Your task to perform on an android device: Search for the best gaming monitor on Best Buy Image 0: 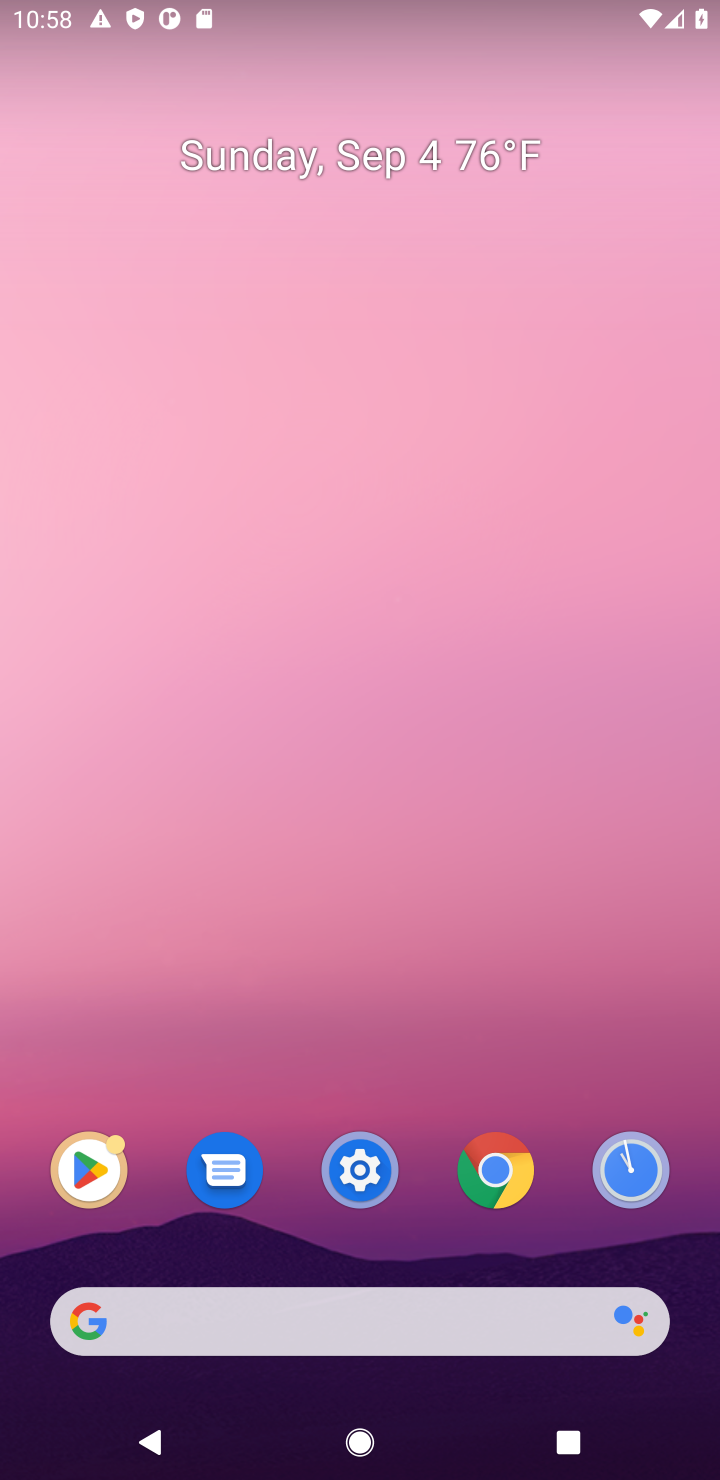
Step 0: click (491, 1326)
Your task to perform on an android device: Search for the best gaming monitor on Best Buy Image 1: 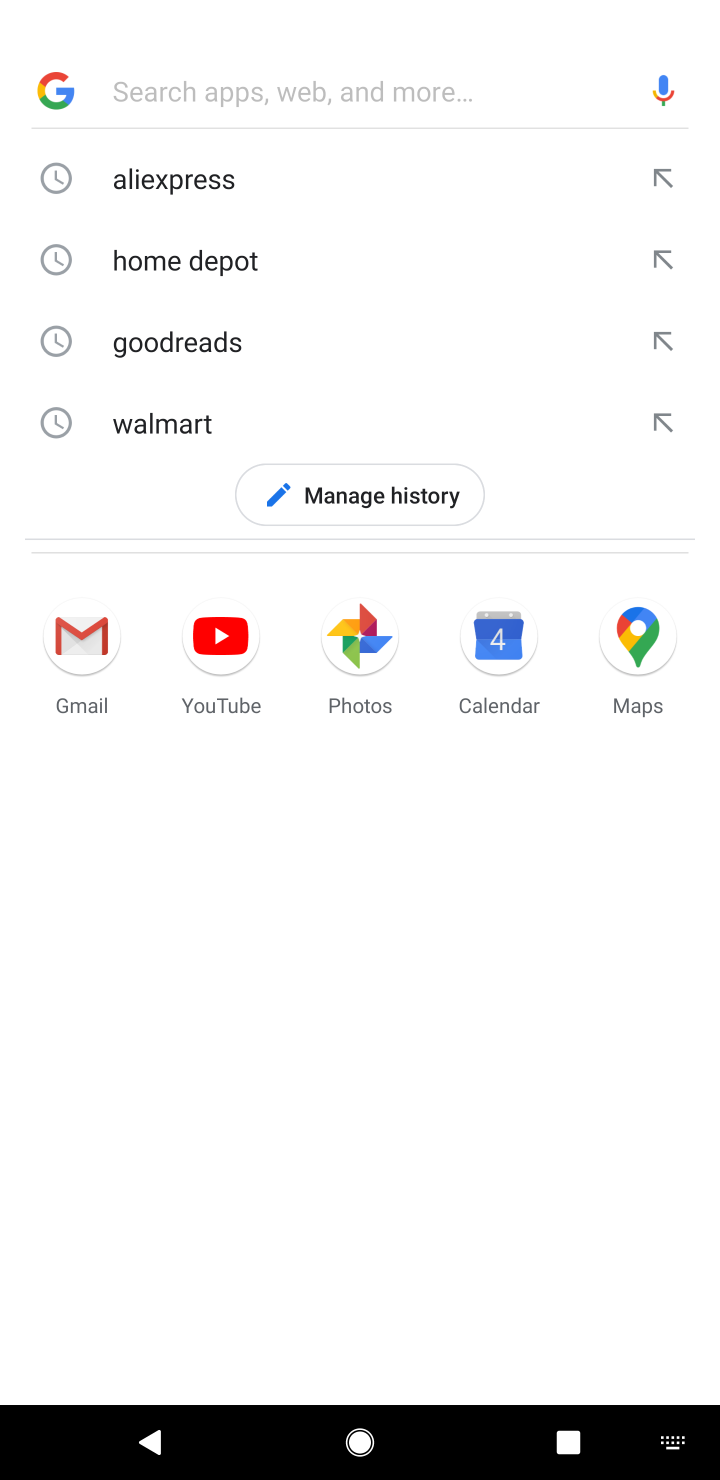
Step 1: type "Best Buy"
Your task to perform on an android device: Search for the best gaming monitor on Best Buy Image 2: 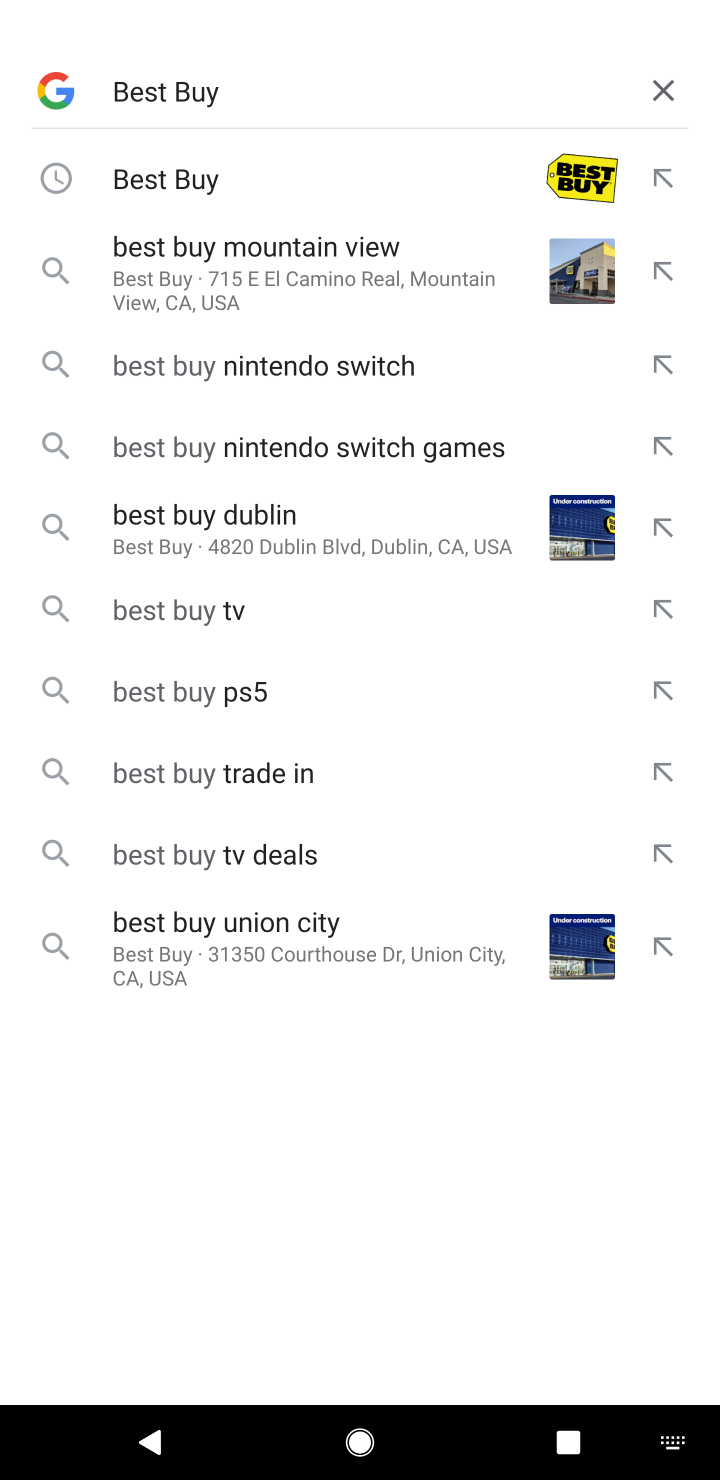
Step 2: click (122, 158)
Your task to perform on an android device: Search for the best gaming monitor on Best Buy Image 3: 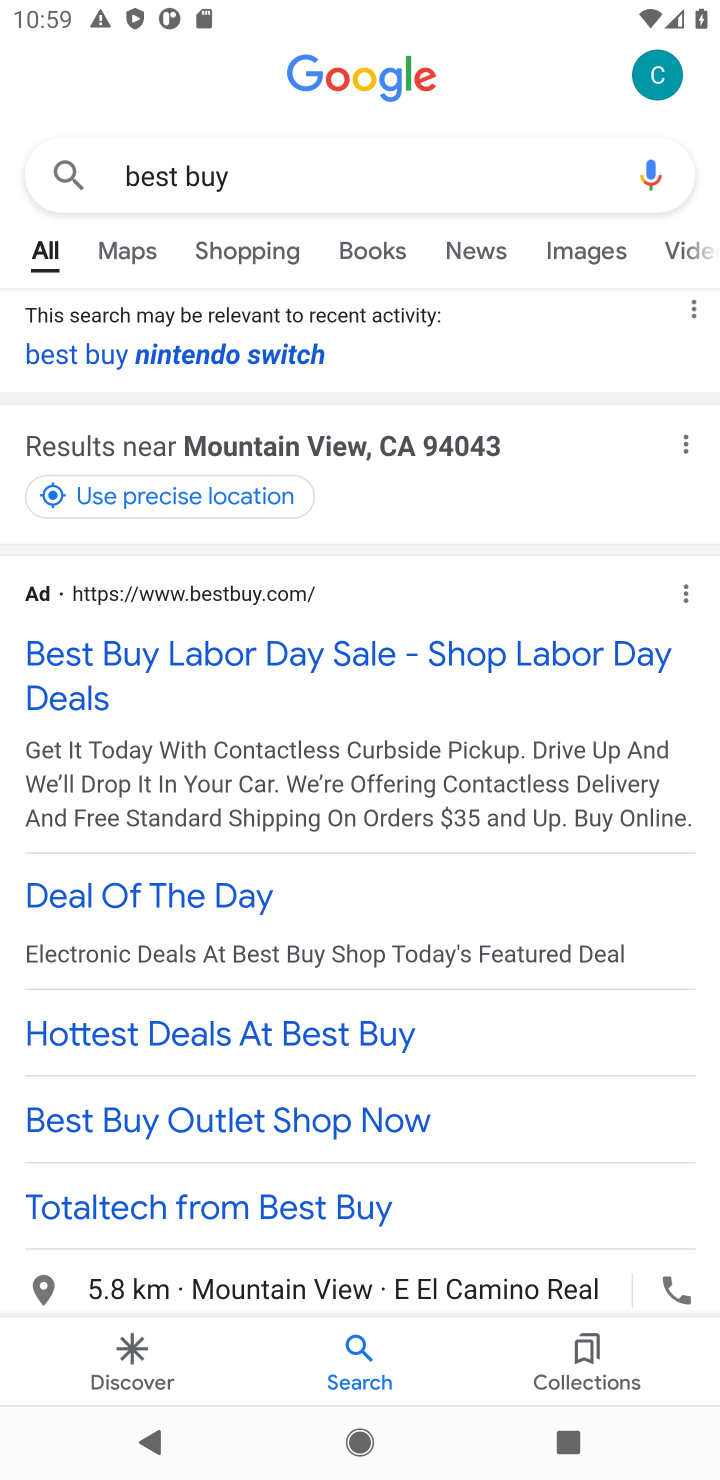
Step 3: drag from (329, 777) to (370, 350)
Your task to perform on an android device: Search for the best gaming monitor on Best Buy Image 4: 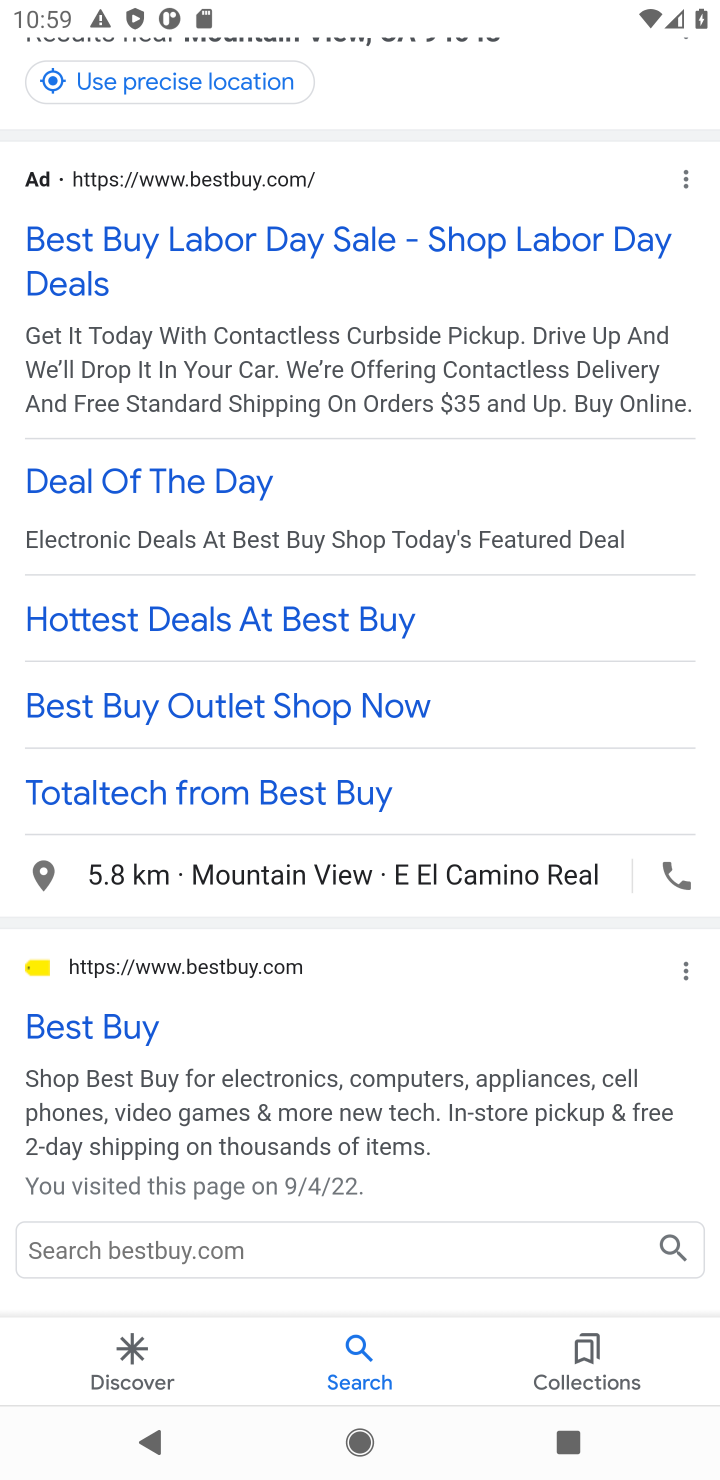
Step 4: drag from (336, 848) to (396, 288)
Your task to perform on an android device: Search for the best gaming monitor on Best Buy Image 5: 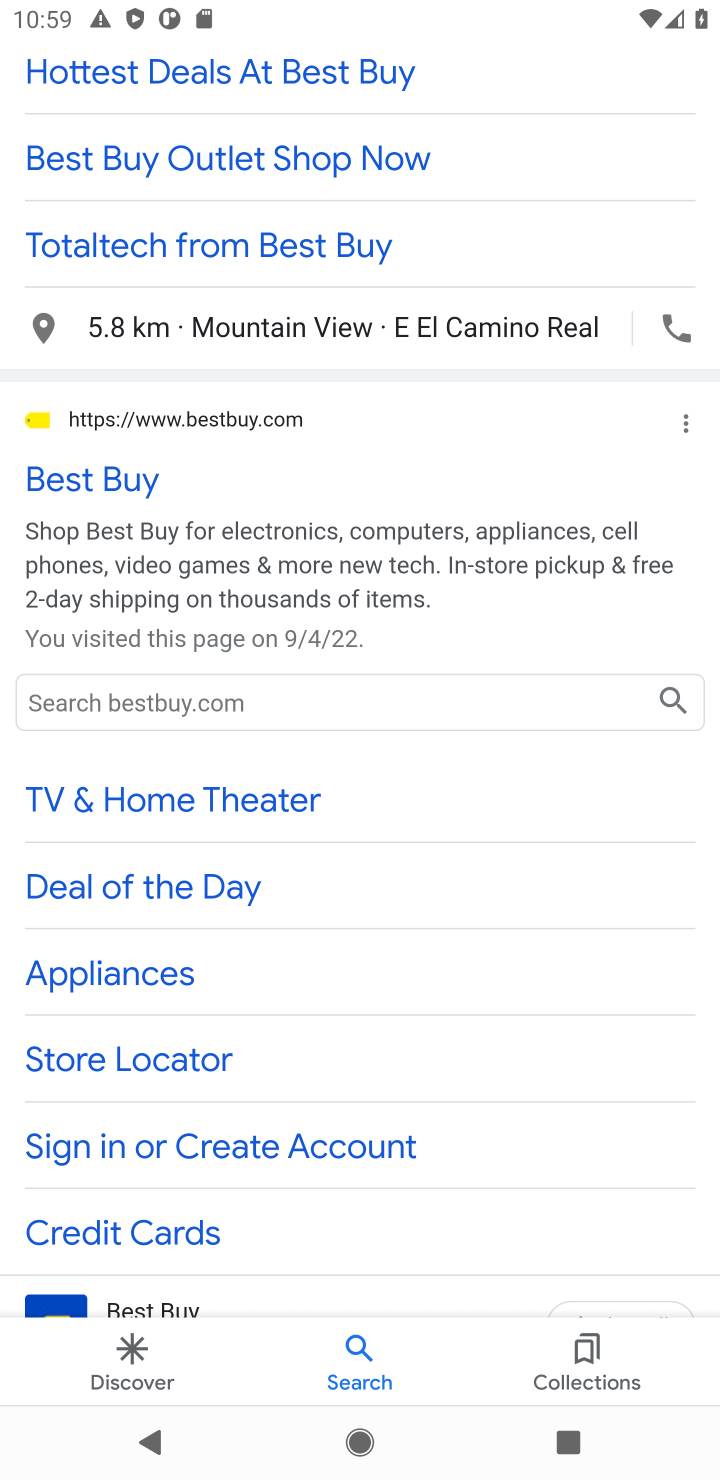
Step 5: click (89, 473)
Your task to perform on an android device: Search for the best gaming monitor on Best Buy Image 6: 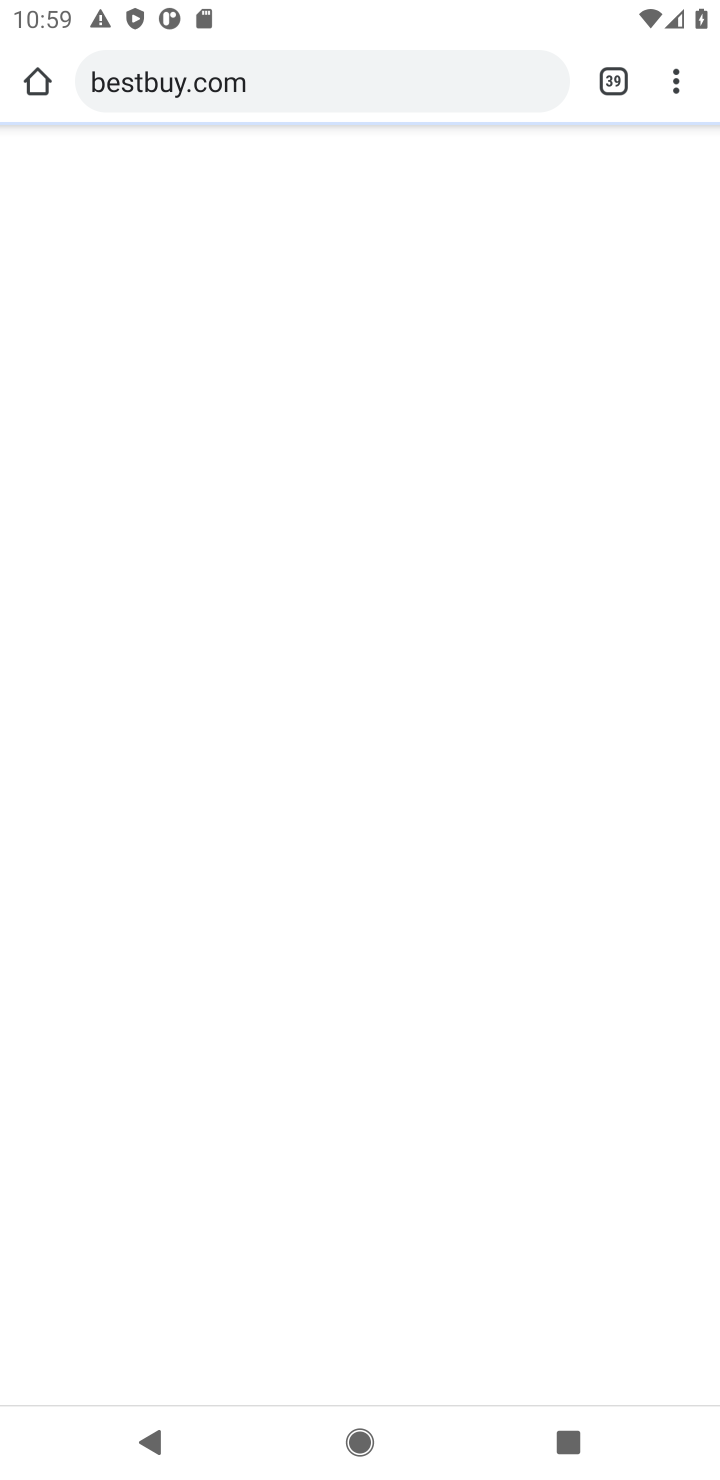
Step 6: click (89, 473)
Your task to perform on an android device: Search for the best gaming monitor on Best Buy Image 7: 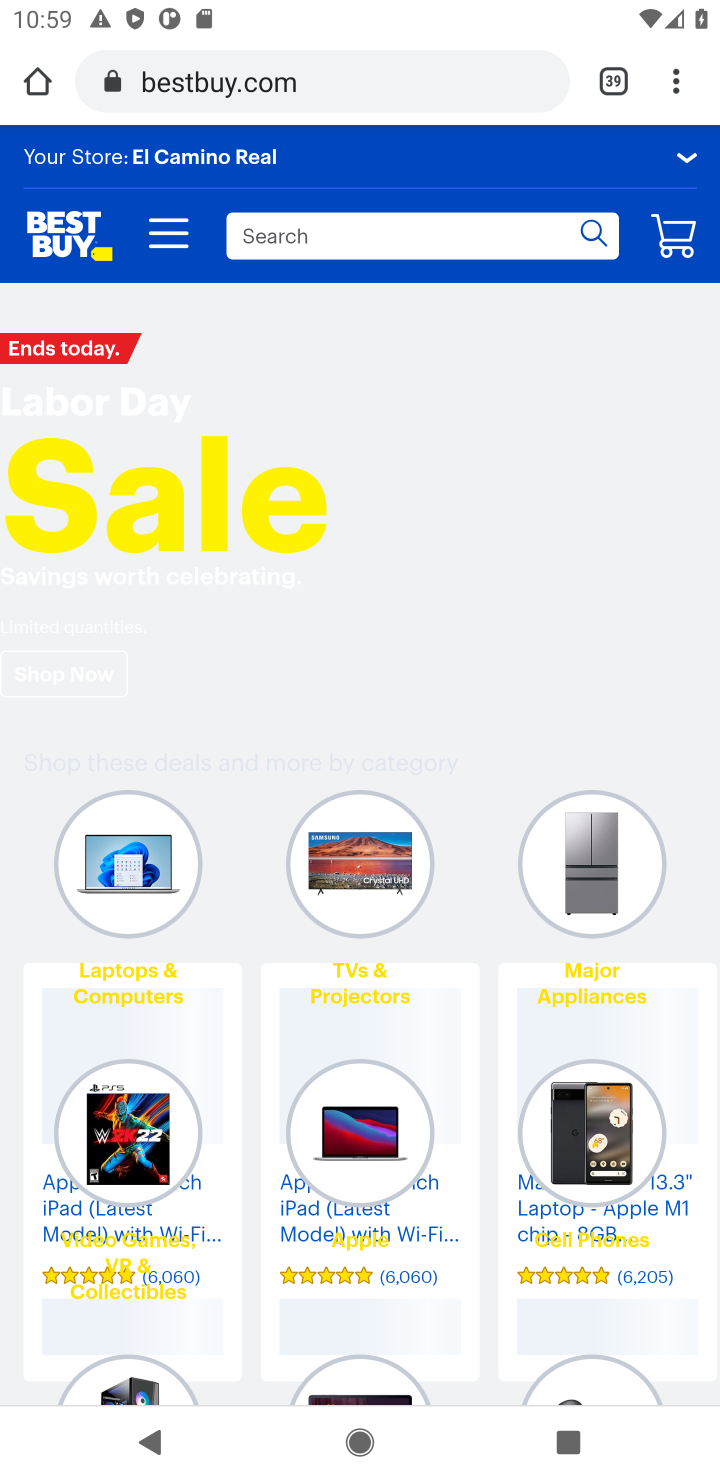
Step 7: click (345, 233)
Your task to perform on an android device: Search for the best gaming monitor on Best Buy Image 8: 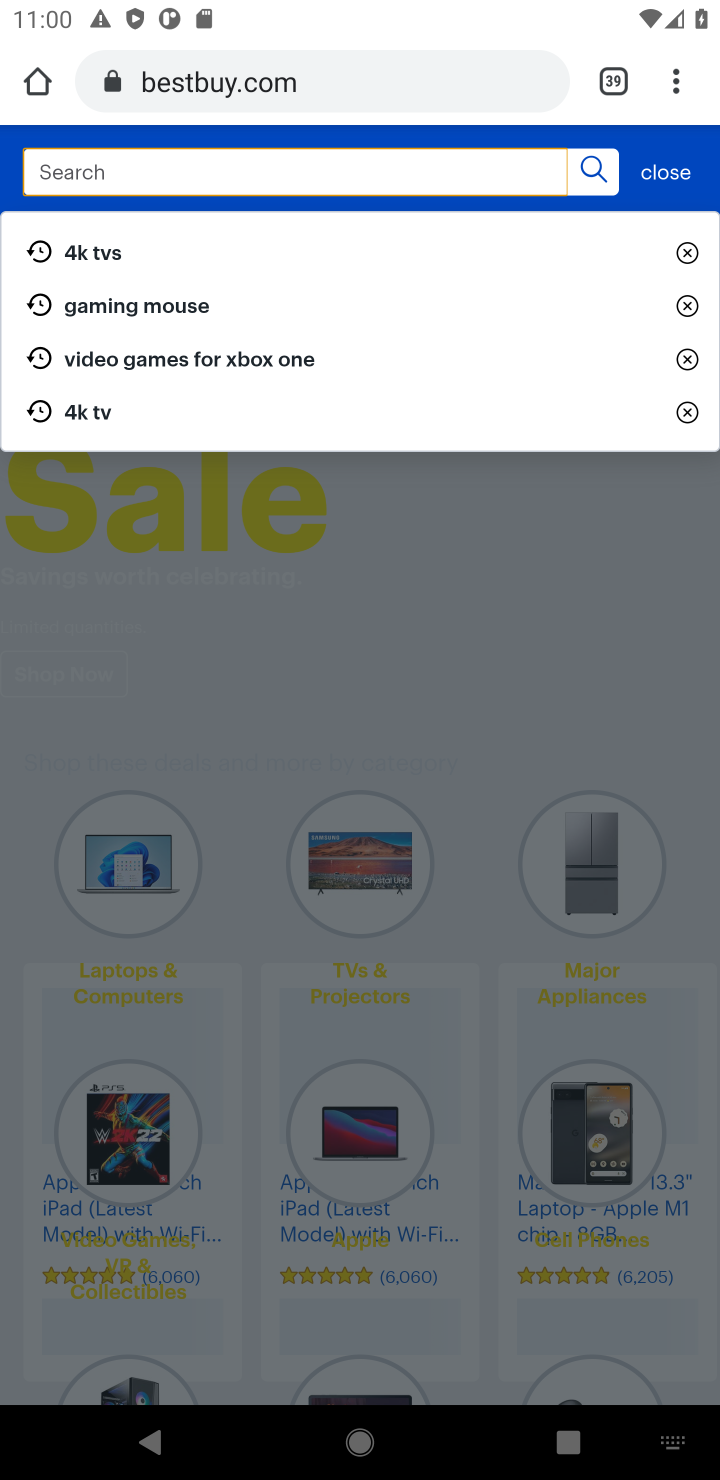
Step 8: type "gaming monitor"
Your task to perform on an android device: Search for the best gaming monitor on Best Buy Image 9: 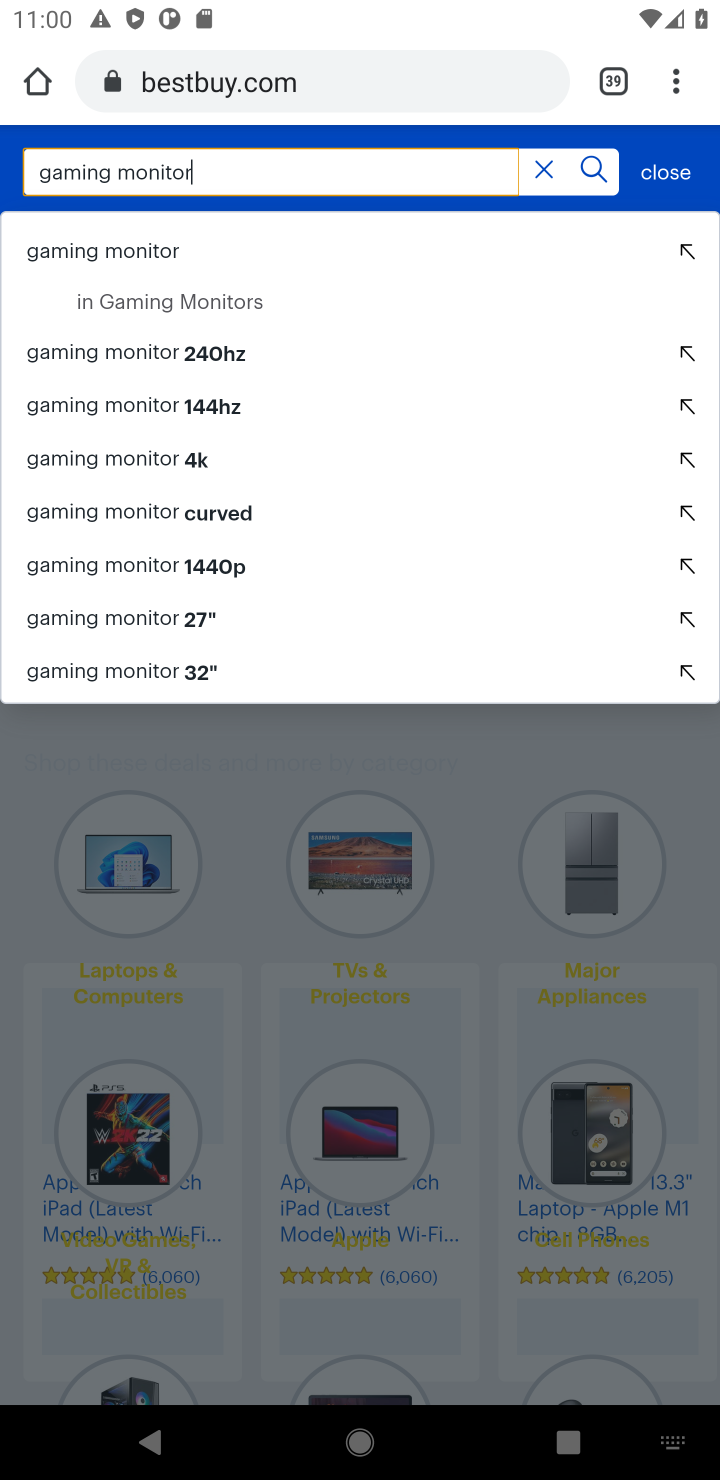
Step 9: click (69, 239)
Your task to perform on an android device: Search for the best gaming monitor on Best Buy Image 10: 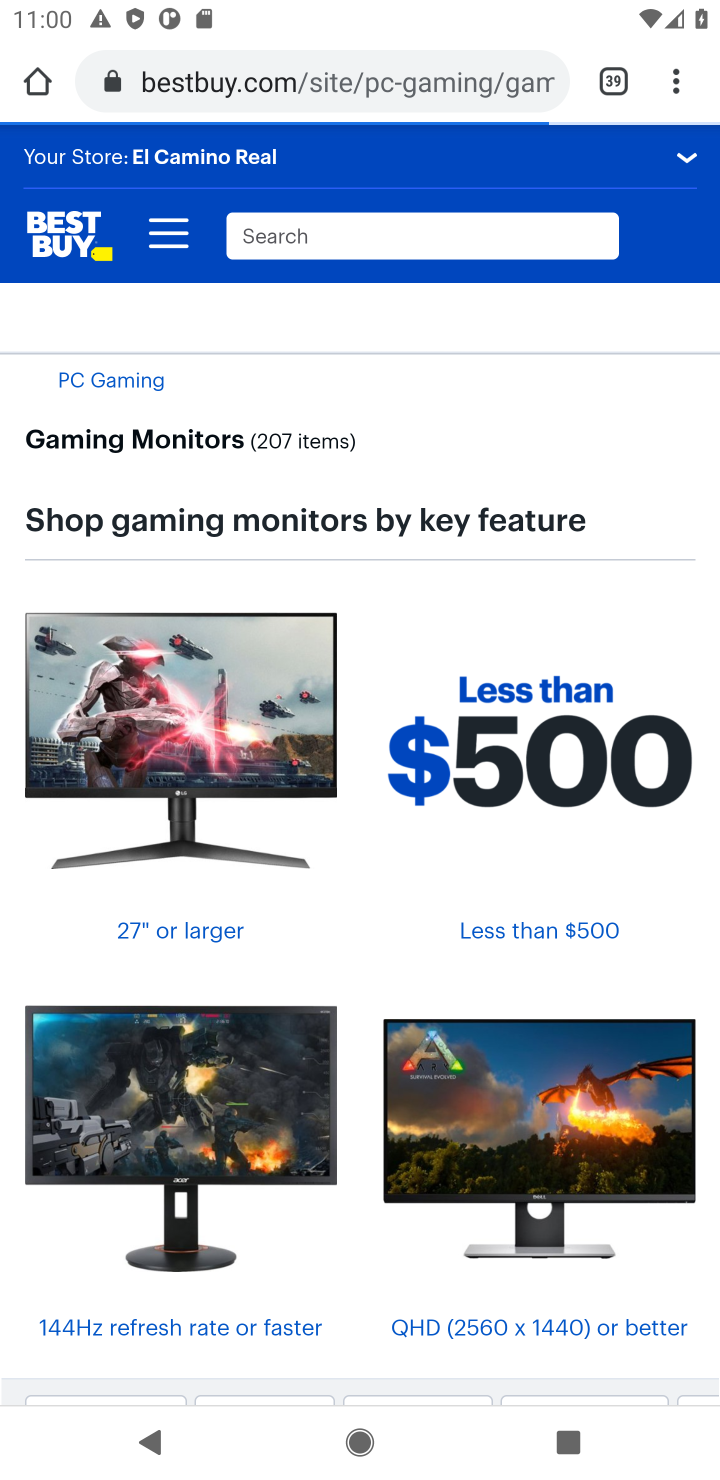
Step 10: drag from (393, 426) to (408, 322)
Your task to perform on an android device: Search for the best gaming monitor on Best Buy Image 11: 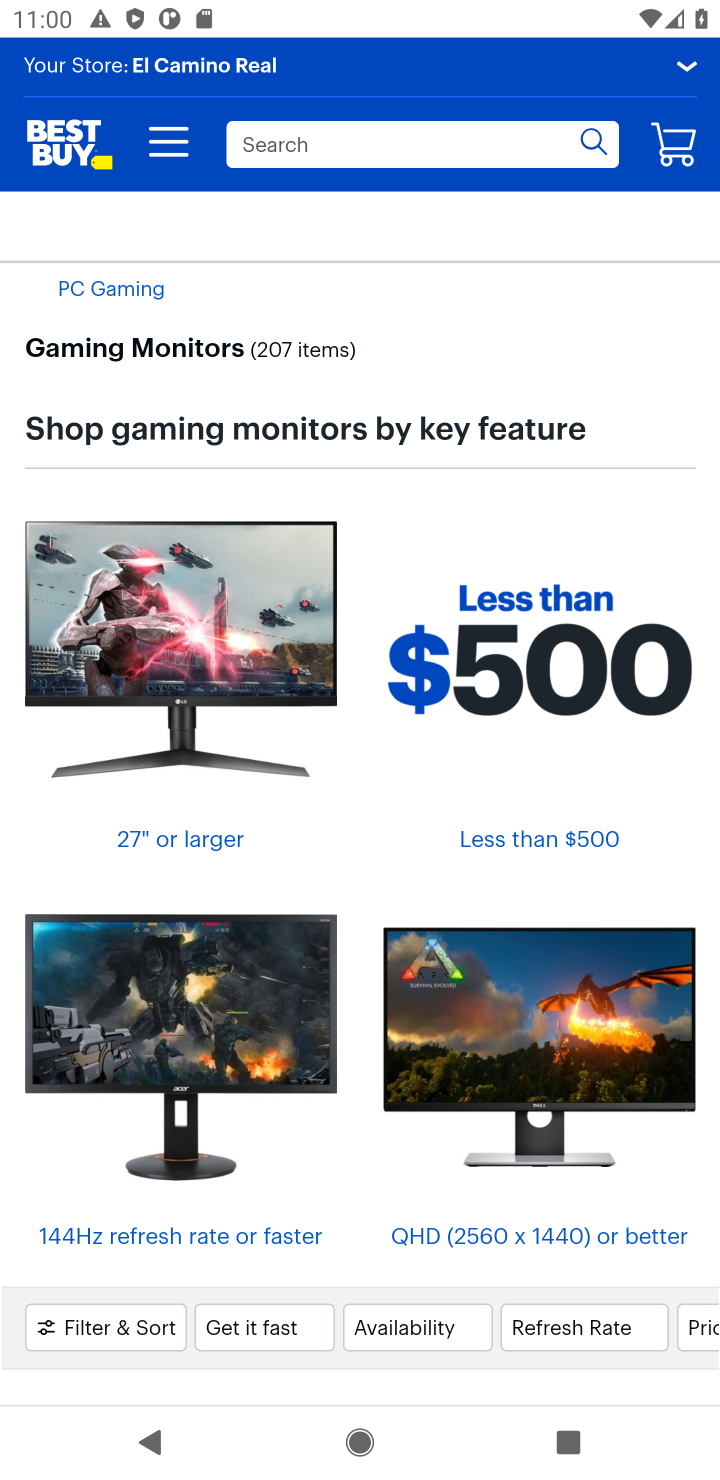
Step 11: drag from (375, 858) to (420, 278)
Your task to perform on an android device: Search for the best gaming monitor on Best Buy Image 12: 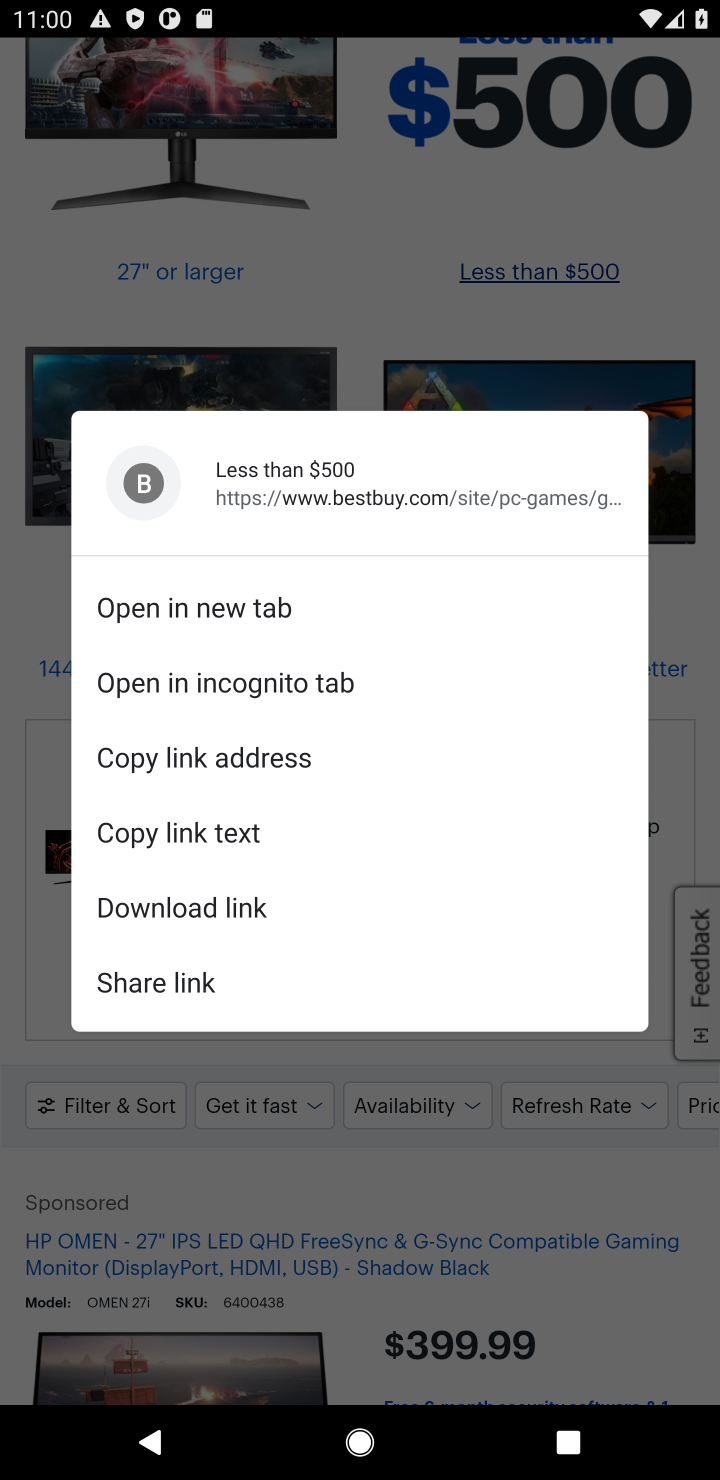
Step 12: click (571, 1226)
Your task to perform on an android device: Search for the best gaming monitor on Best Buy Image 13: 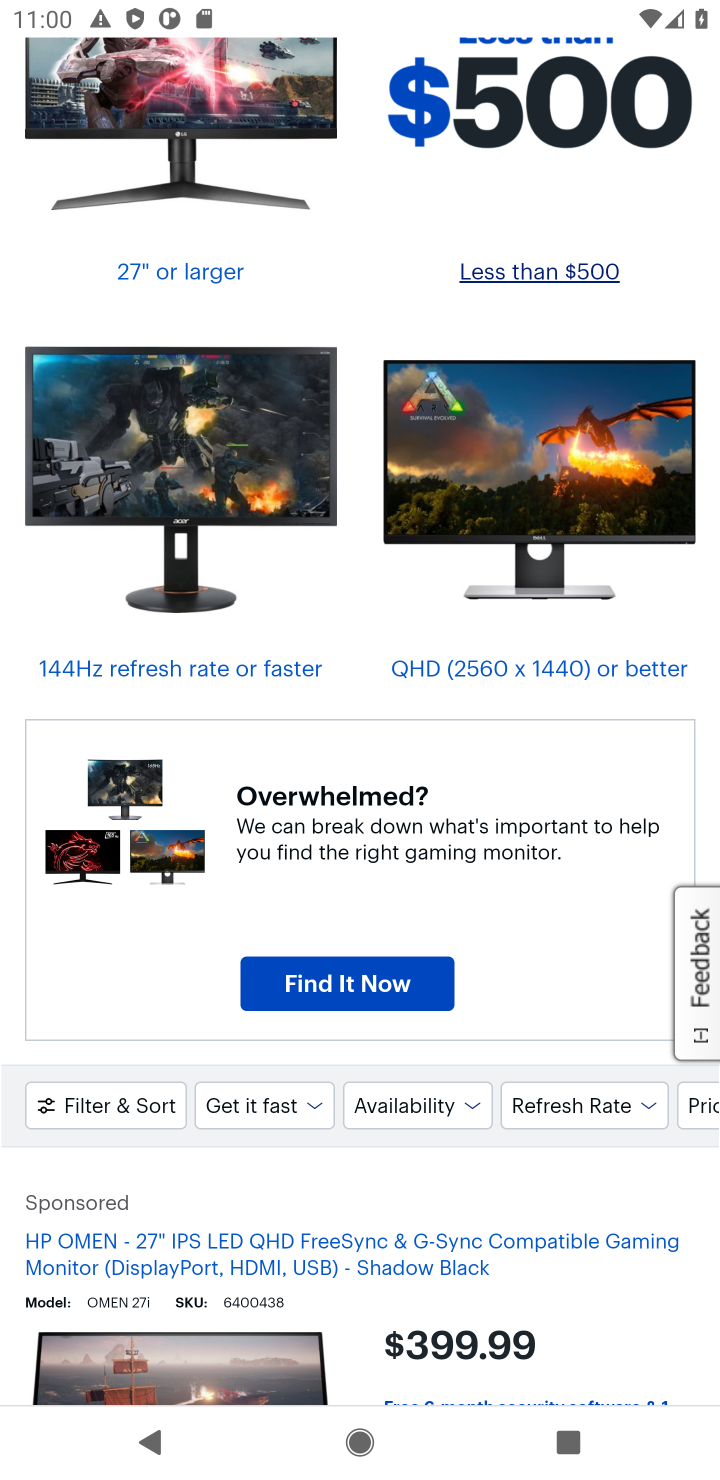
Step 13: task complete